Your task to perform on an android device: toggle notification dots Image 0: 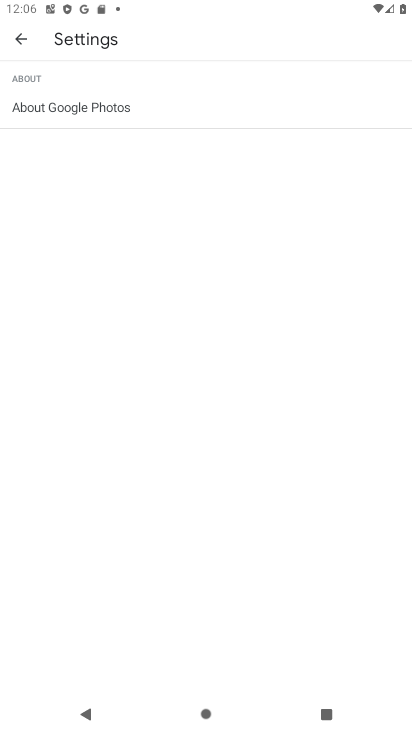
Step 0: press home button
Your task to perform on an android device: toggle notification dots Image 1: 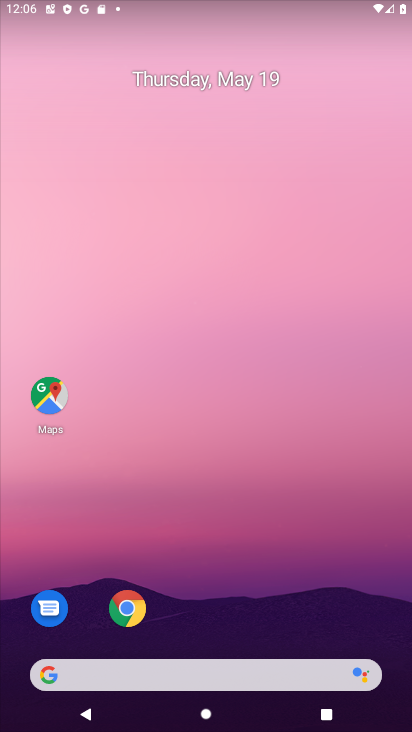
Step 1: drag from (269, 629) to (230, 241)
Your task to perform on an android device: toggle notification dots Image 2: 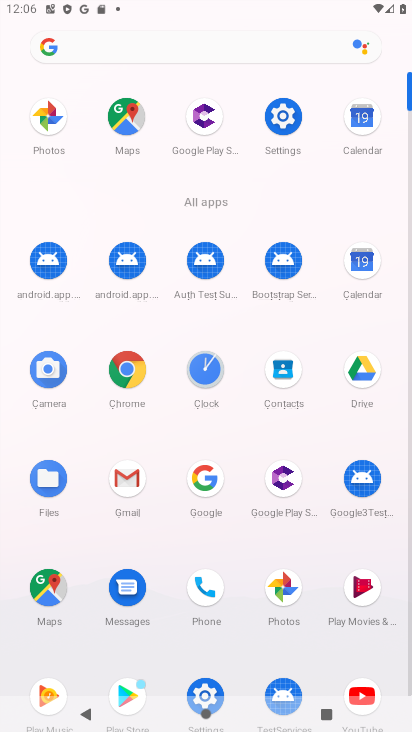
Step 2: click (281, 111)
Your task to perform on an android device: toggle notification dots Image 3: 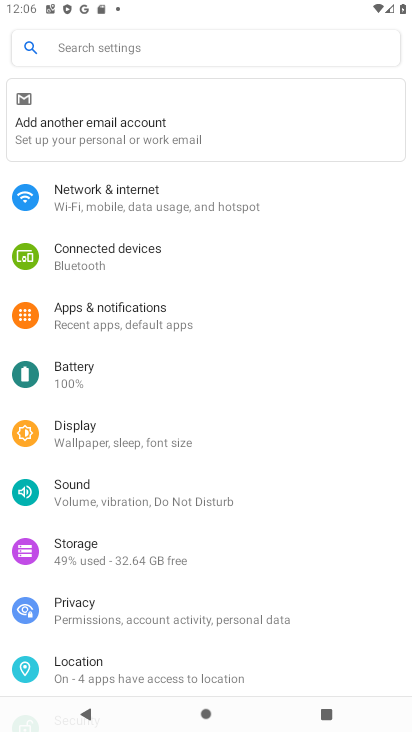
Step 3: drag from (211, 722) to (335, 721)
Your task to perform on an android device: toggle notification dots Image 4: 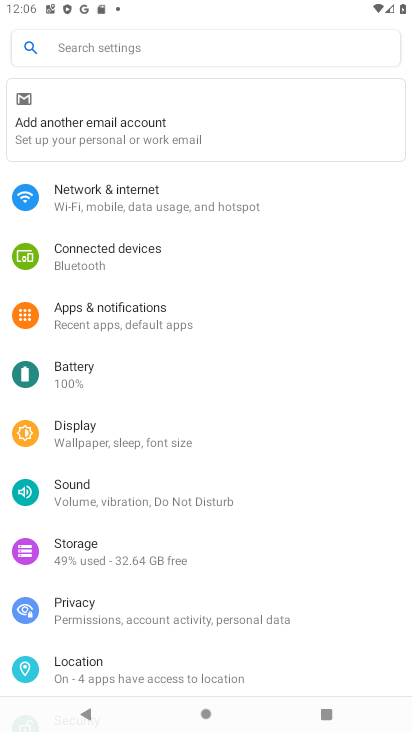
Step 4: click (199, 43)
Your task to perform on an android device: toggle notification dots Image 5: 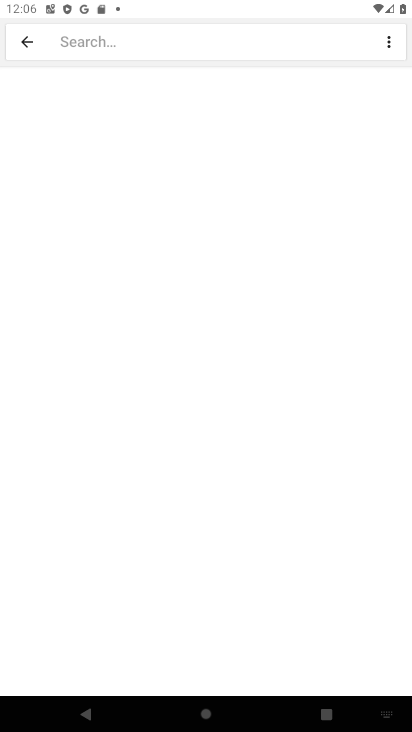
Step 5: type "notification dots"
Your task to perform on an android device: toggle notification dots Image 6: 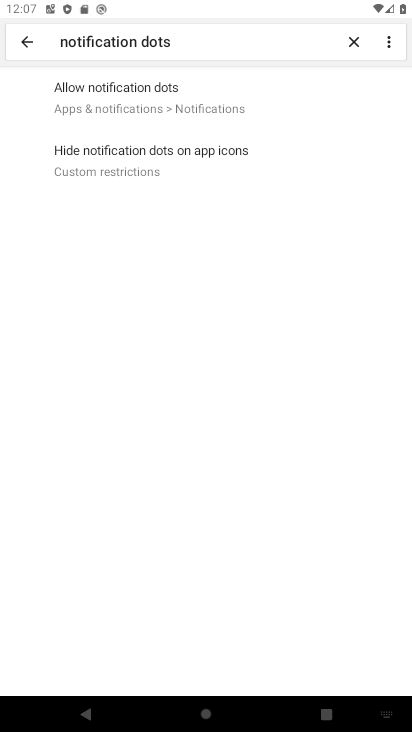
Step 6: click (128, 103)
Your task to perform on an android device: toggle notification dots Image 7: 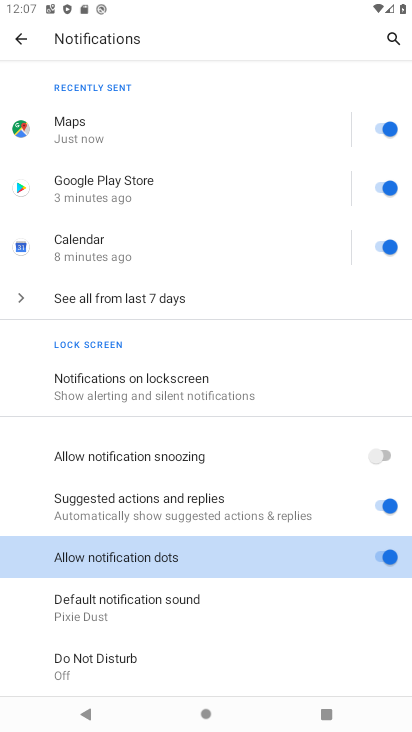
Step 7: click (391, 555)
Your task to perform on an android device: toggle notification dots Image 8: 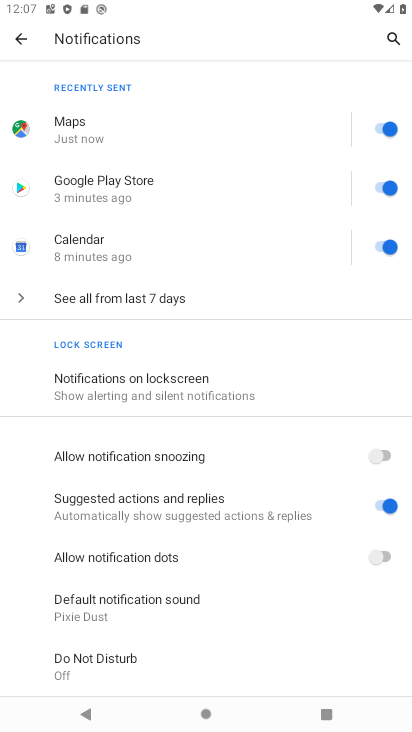
Step 8: task complete